Your task to perform on an android device: turn on airplane mode Image 0: 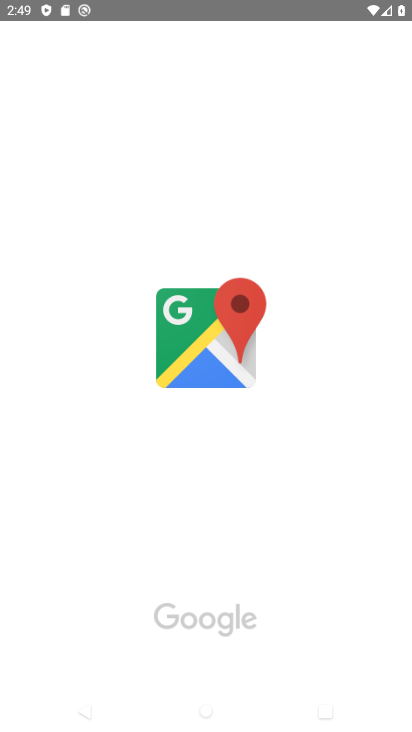
Step 0: drag from (310, 328) to (324, 236)
Your task to perform on an android device: turn on airplane mode Image 1: 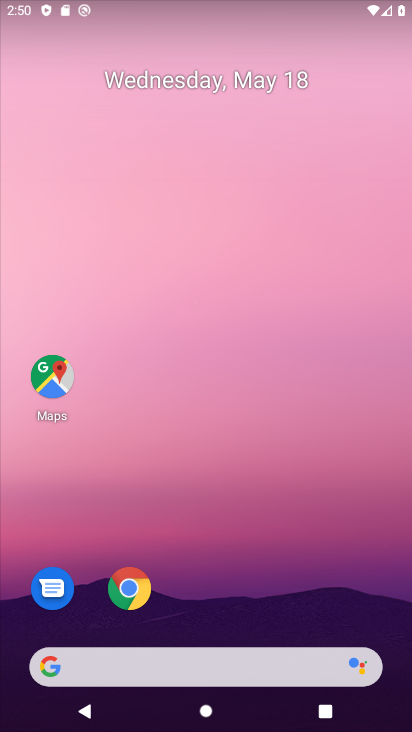
Step 1: drag from (306, 573) to (298, 270)
Your task to perform on an android device: turn on airplane mode Image 2: 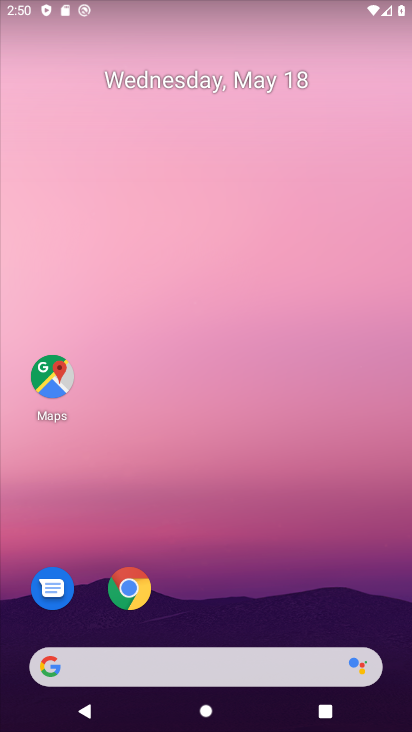
Step 2: drag from (358, 588) to (353, 135)
Your task to perform on an android device: turn on airplane mode Image 3: 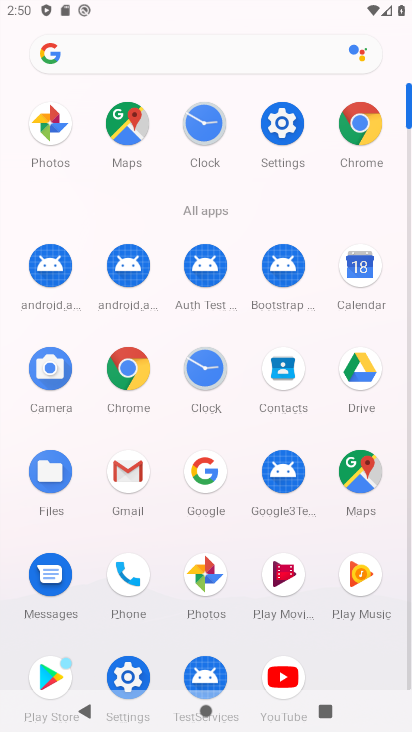
Step 3: click (297, 113)
Your task to perform on an android device: turn on airplane mode Image 4: 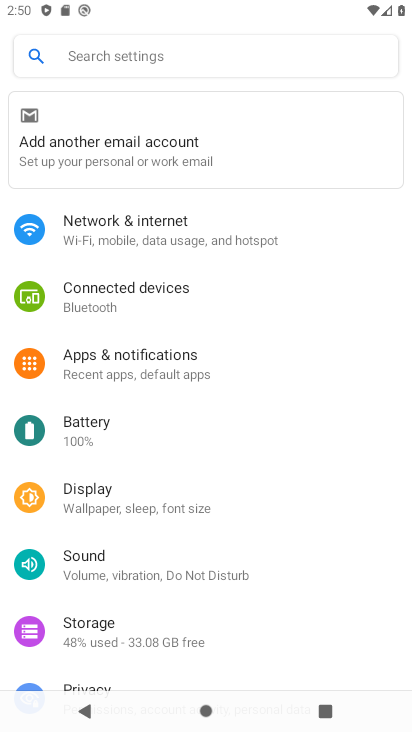
Step 4: click (213, 245)
Your task to perform on an android device: turn on airplane mode Image 5: 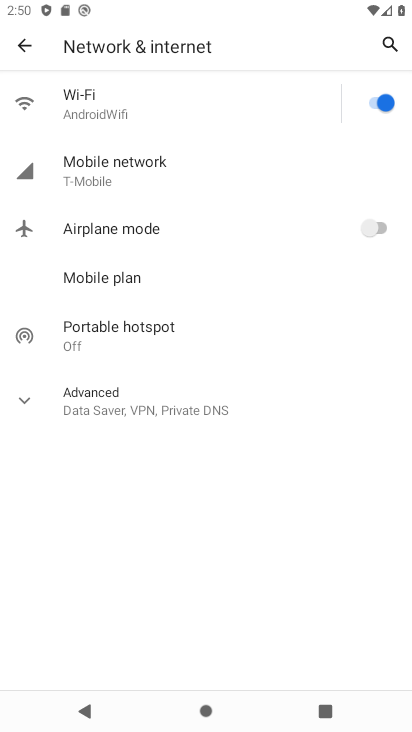
Step 5: click (382, 234)
Your task to perform on an android device: turn on airplane mode Image 6: 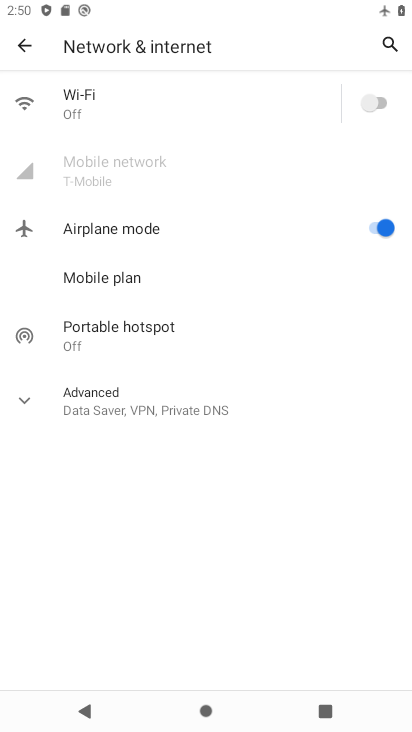
Step 6: task complete